Your task to perform on an android device: install app "Fetch Rewards" Image 0: 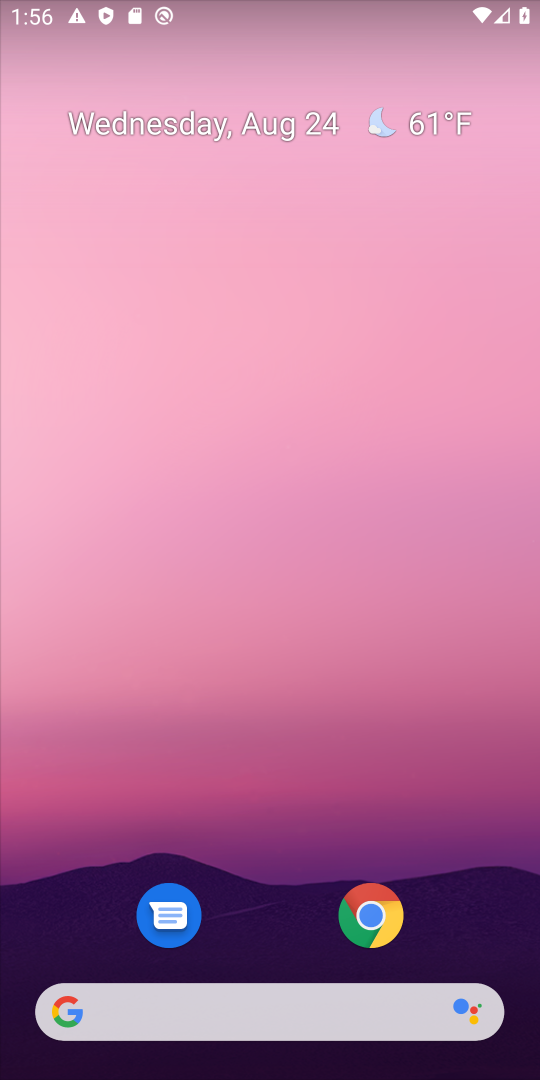
Step 0: drag from (275, 849) to (271, 223)
Your task to perform on an android device: install app "Fetch Rewards" Image 1: 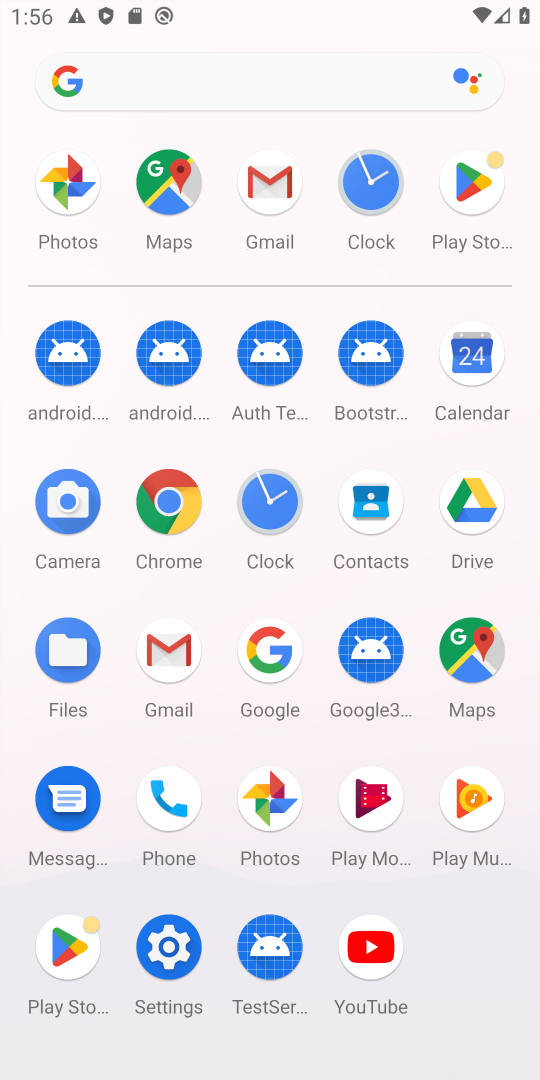
Step 1: click (466, 182)
Your task to perform on an android device: install app "Fetch Rewards" Image 2: 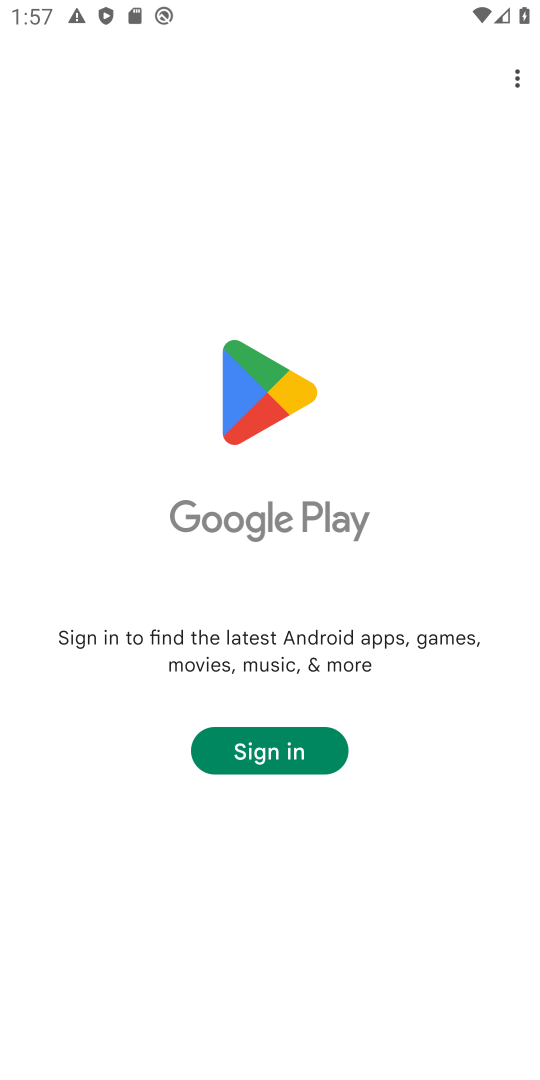
Step 2: task complete